Your task to perform on an android device: open app "Yahoo Mail" (install if not already installed) and go to login screen Image 0: 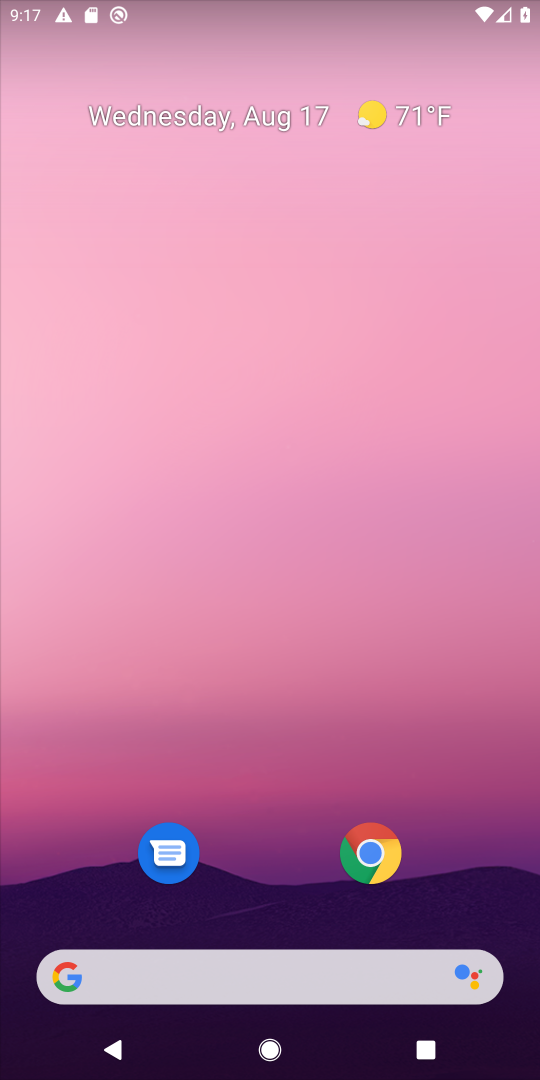
Step 0: drag from (293, 822) to (320, 231)
Your task to perform on an android device: open app "Yahoo Mail" (install if not already installed) and go to login screen Image 1: 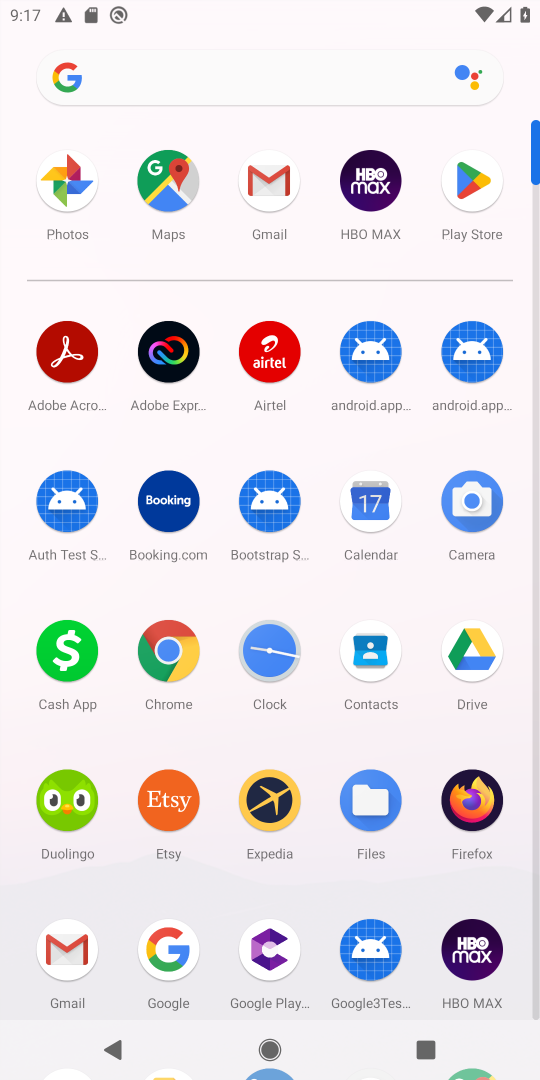
Step 1: click (466, 179)
Your task to perform on an android device: open app "Yahoo Mail" (install if not already installed) and go to login screen Image 2: 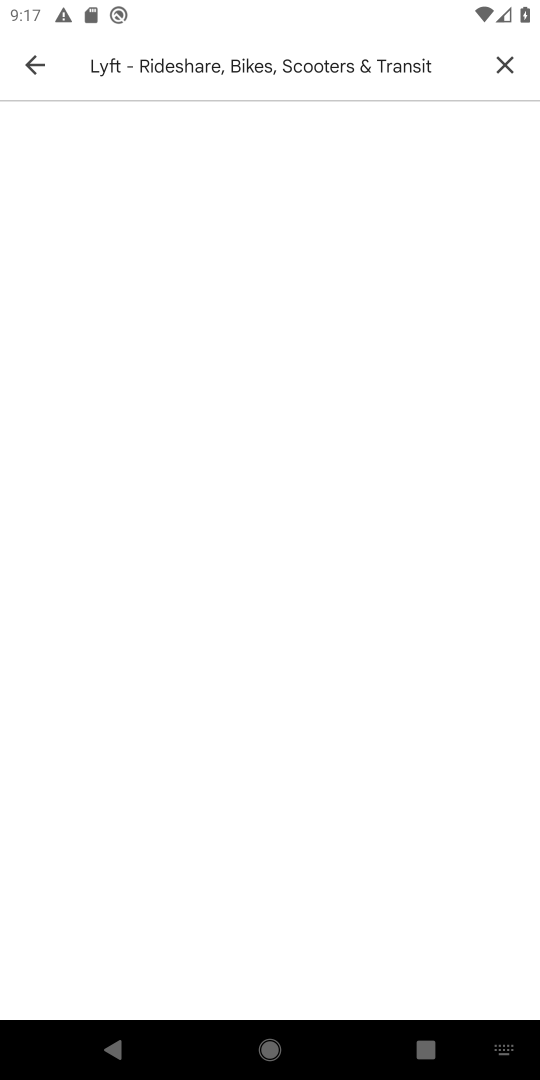
Step 2: click (491, 57)
Your task to perform on an android device: open app "Yahoo Mail" (install if not already installed) and go to login screen Image 3: 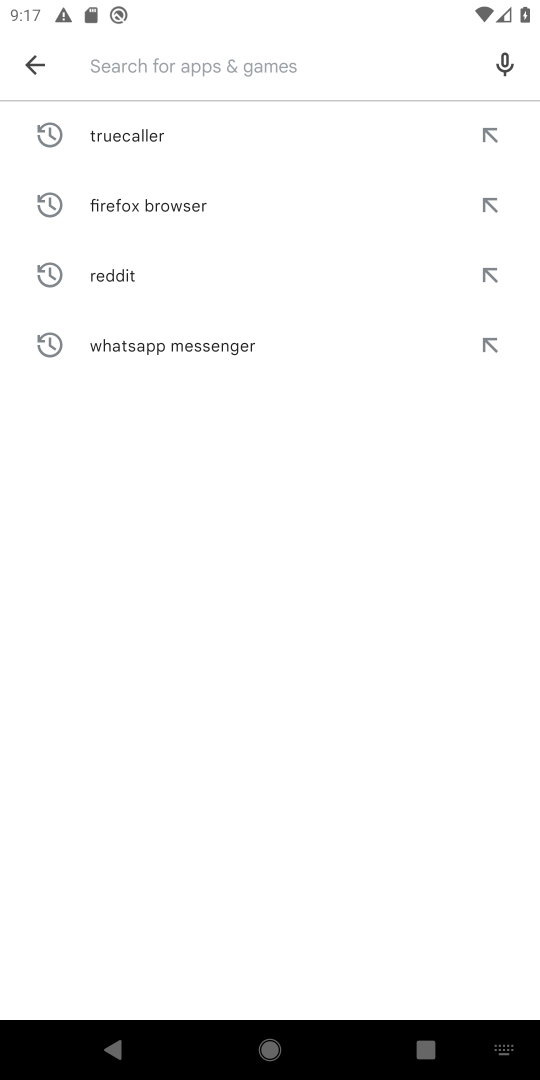
Step 3: type "Yahoo Mail"
Your task to perform on an android device: open app "Yahoo Mail" (install if not already installed) and go to login screen Image 4: 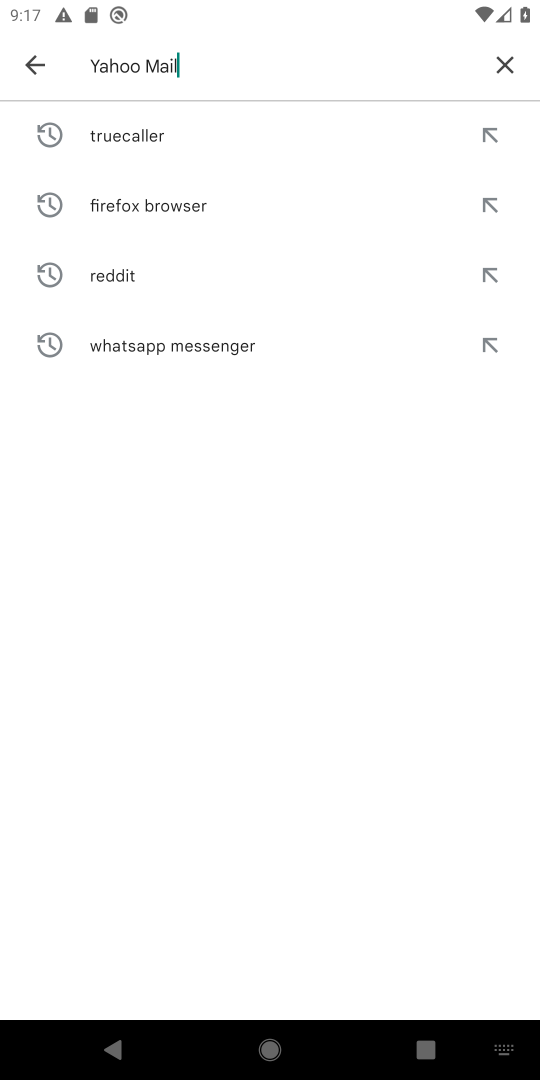
Step 4: type ""
Your task to perform on an android device: open app "Yahoo Mail" (install if not already installed) and go to login screen Image 5: 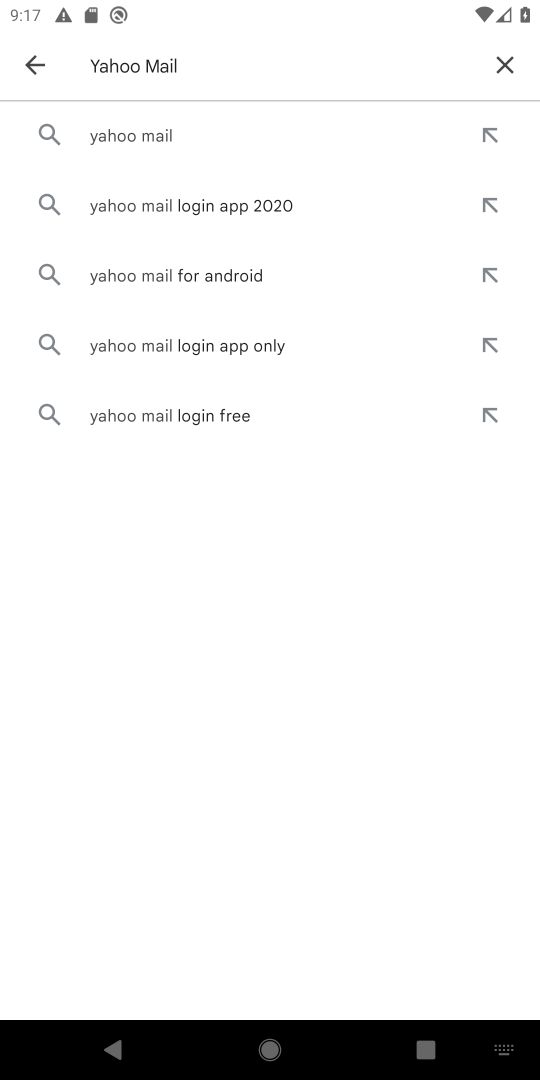
Step 5: click (175, 143)
Your task to perform on an android device: open app "Yahoo Mail" (install if not already installed) and go to login screen Image 6: 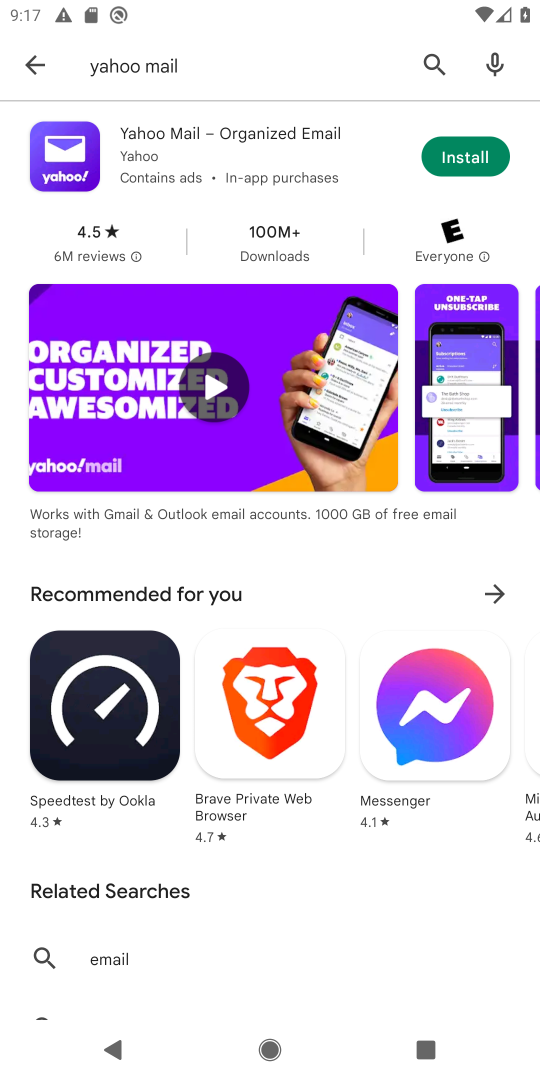
Step 6: click (445, 159)
Your task to perform on an android device: open app "Yahoo Mail" (install if not already installed) and go to login screen Image 7: 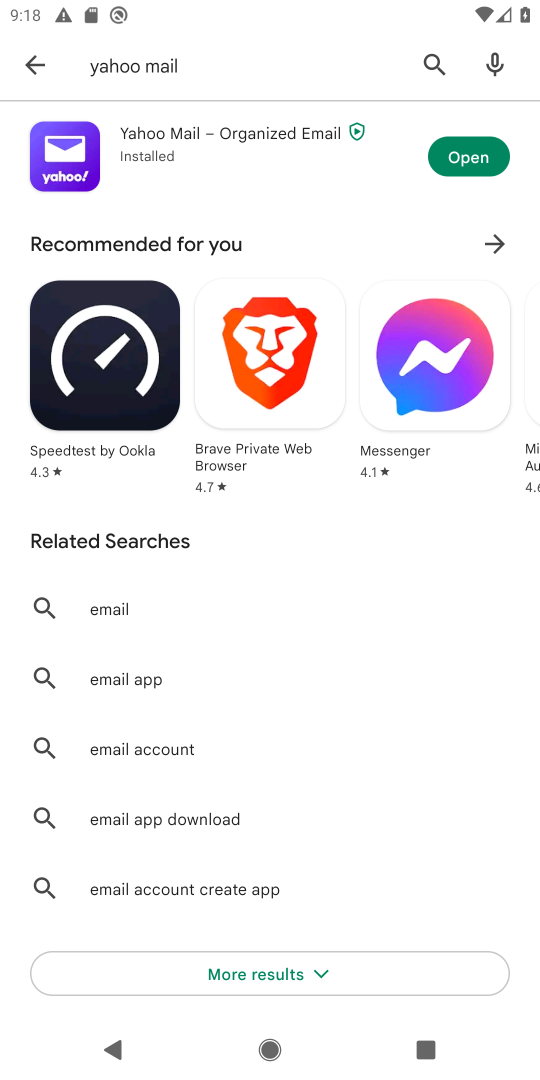
Step 7: click (460, 161)
Your task to perform on an android device: open app "Yahoo Mail" (install if not already installed) and go to login screen Image 8: 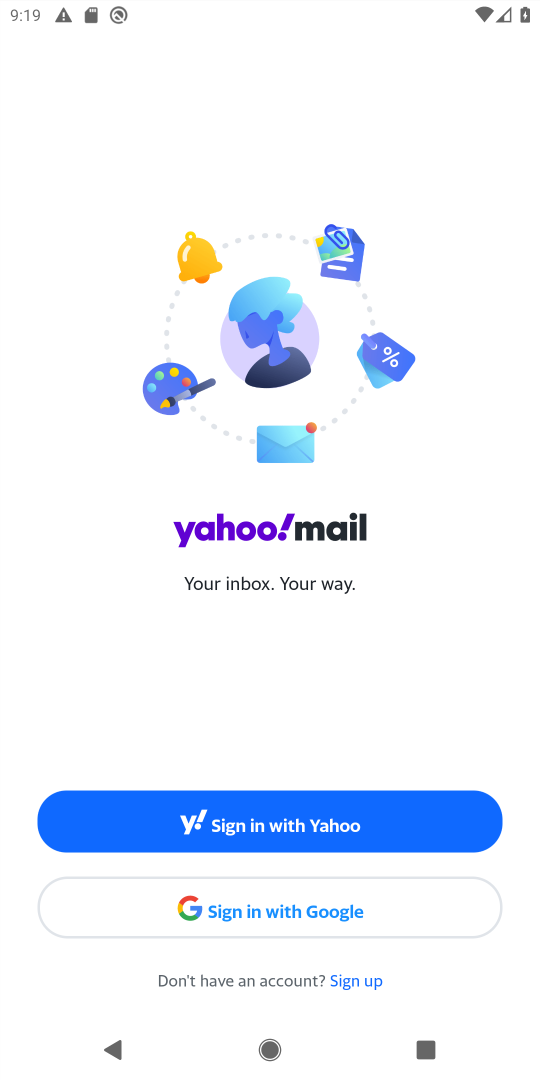
Step 8: task complete